Your task to perform on an android device: find snoozed emails in the gmail app Image 0: 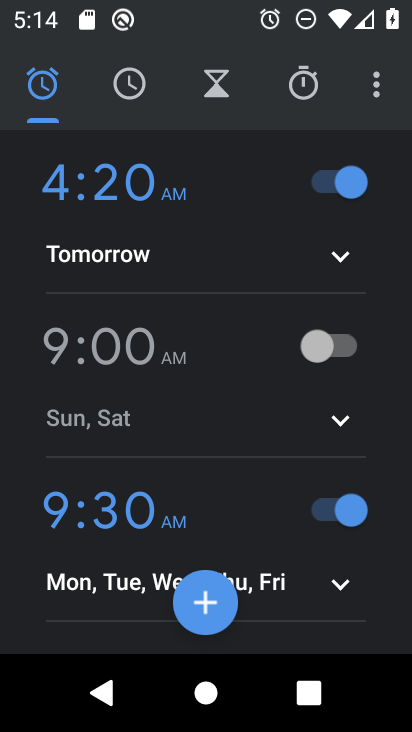
Step 0: press home button
Your task to perform on an android device: find snoozed emails in the gmail app Image 1: 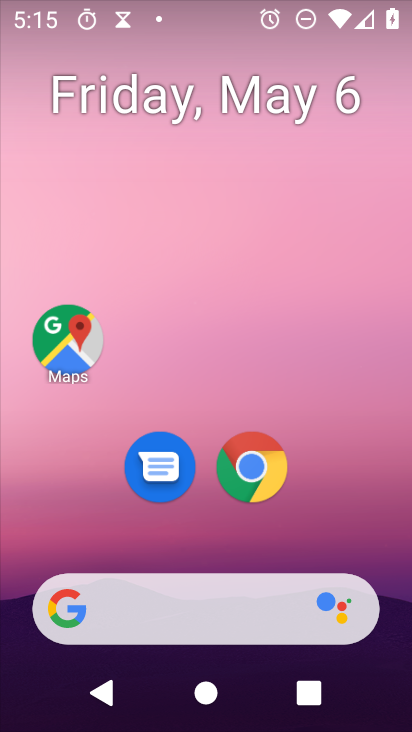
Step 1: drag from (298, 317) to (255, 140)
Your task to perform on an android device: find snoozed emails in the gmail app Image 2: 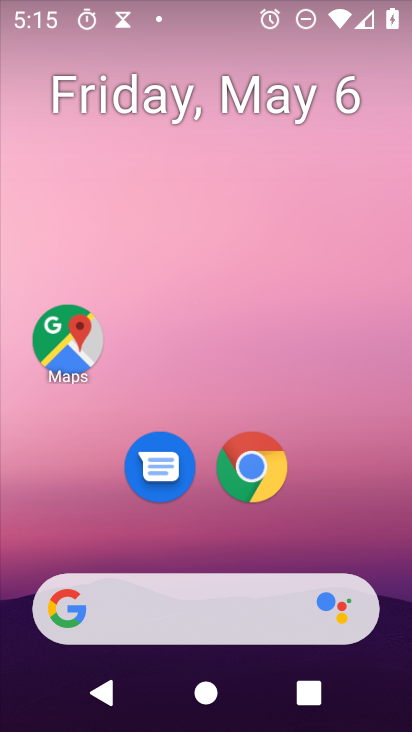
Step 2: drag from (298, 485) to (344, 121)
Your task to perform on an android device: find snoozed emails in the gmail app Image 3: 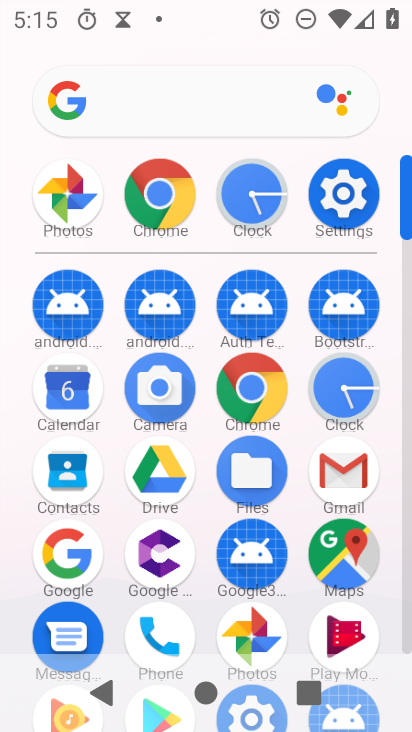
Step 3: click (359, 486)
Your task to perform on an android device: find snoozed emails in the gmail app Image 4: 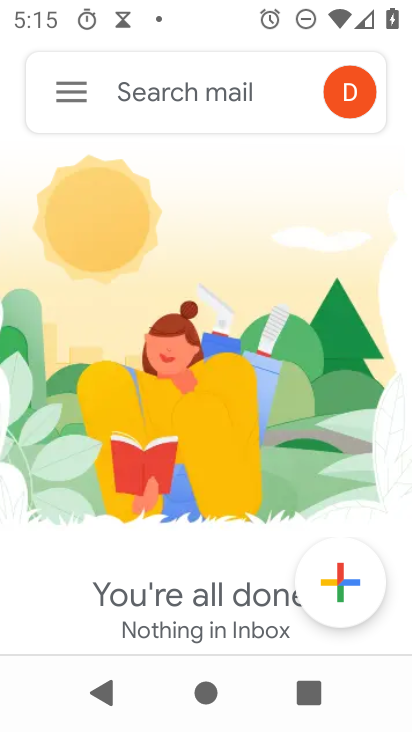
Step 4: click (59, 80)
Your task to perform on an android device: find snoozed emails in the gmail app Image 5: 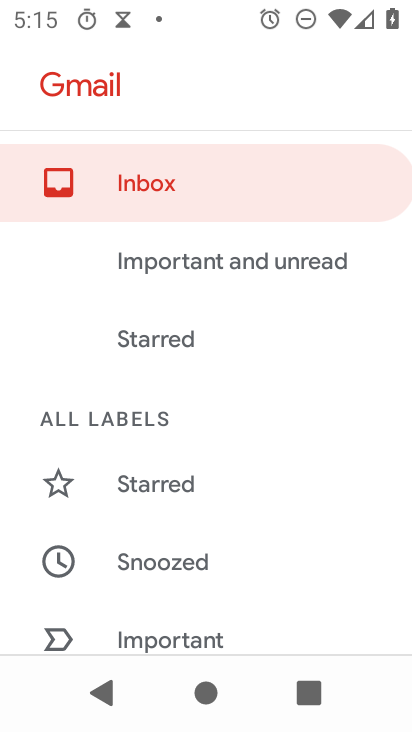
Step 5: click (174, 558)
Your task to perform on an android device: find snoozed emails in the gmail app Image 6: 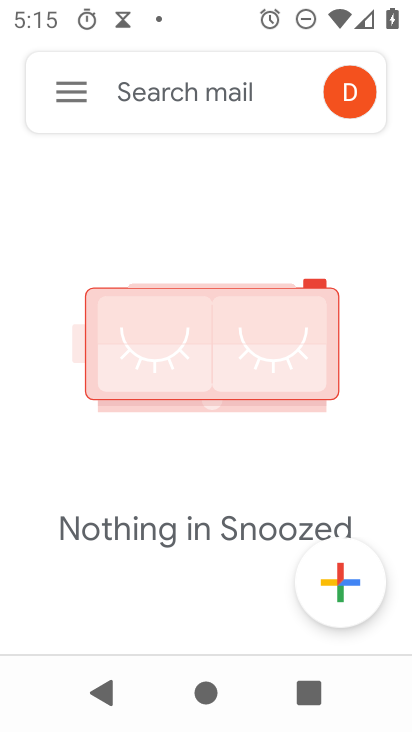
Step 6: task complete